Your task to perform on an android device: allow cookies in the chrome app Image 0: 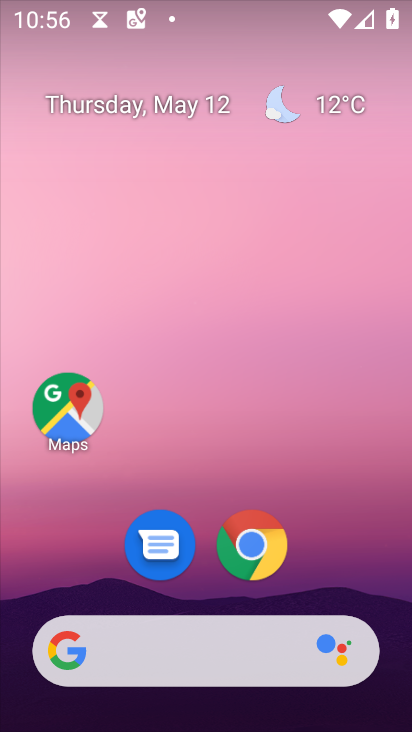
Step 0: click (245, 539)
Your task to perform on an android device: allow cookies in the chrome app Image 1: 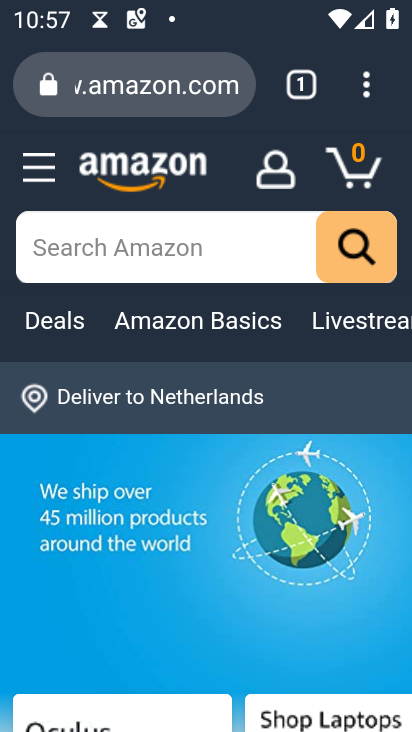
Step 1: click (371, 83)
Your task to perform on an android device: allow cookies in the chrome app Image 2: 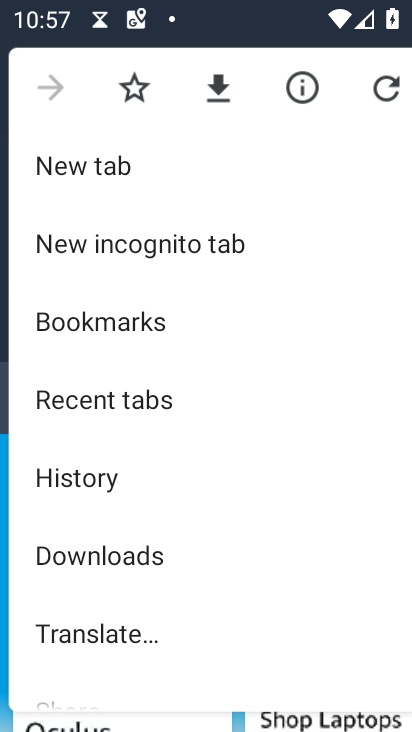
Step 2: drag from (175, 651) to (182, 140)
Your task to perform on an android device: allow cookies in the chrome app Image 3: 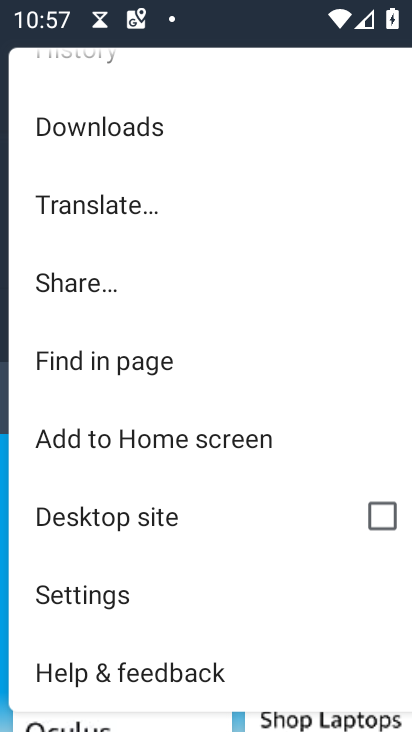
Step 3: click (140, 596)
Your task to perform on an android device: allow cookies in the chrome app Image 4: 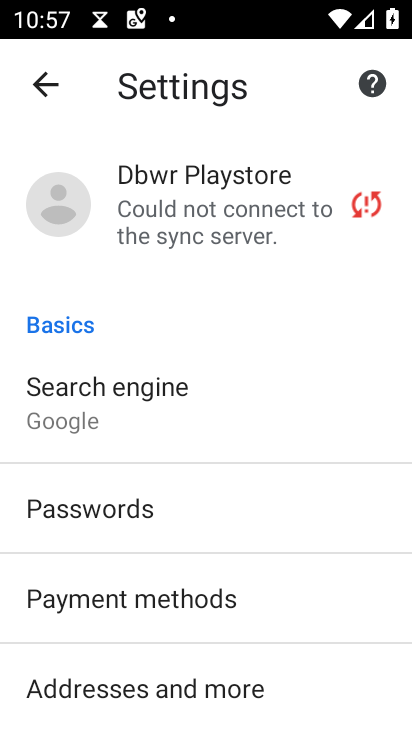
Step 4: drag from (272, 675) to (276, 173)
Your task to perform on an android device: allow cookies in the chrome app Image 5: 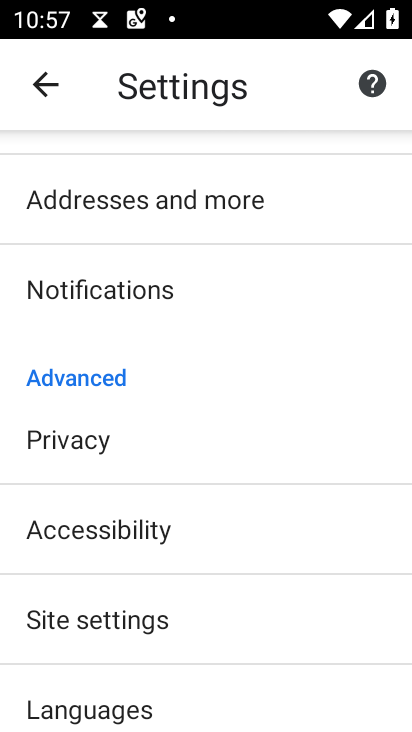
Step 5: click (182, 627)
Your task to perform on an android device: allow cookies in the chrome app Image 6: 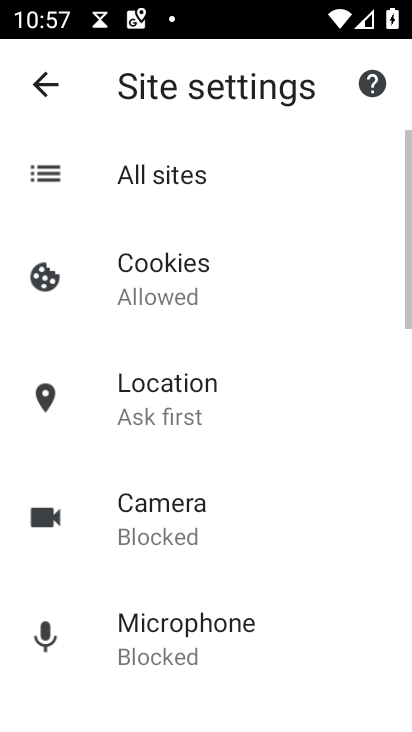
Step 6: click (211, 274)
Your task to perform on an android device: allow cookies in the chrome app Image 7: 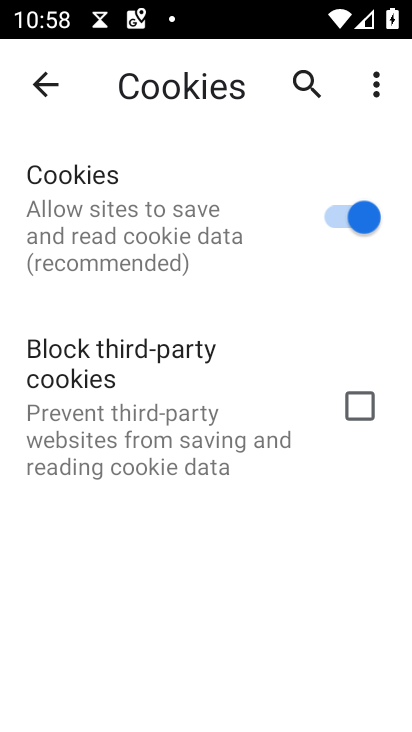
Step 7: task complete